Your task to perform on an android device: Open internet settings Image 0: 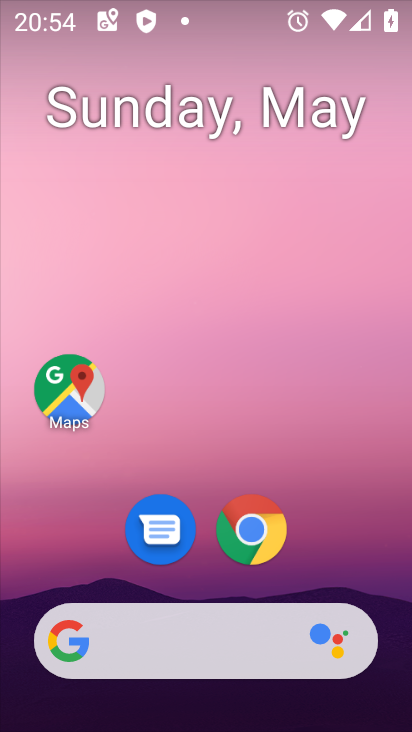
Step 0: drag from (354, 591) to (356, 12)
Your task to perform on an android device: Open internet settings Image 1: 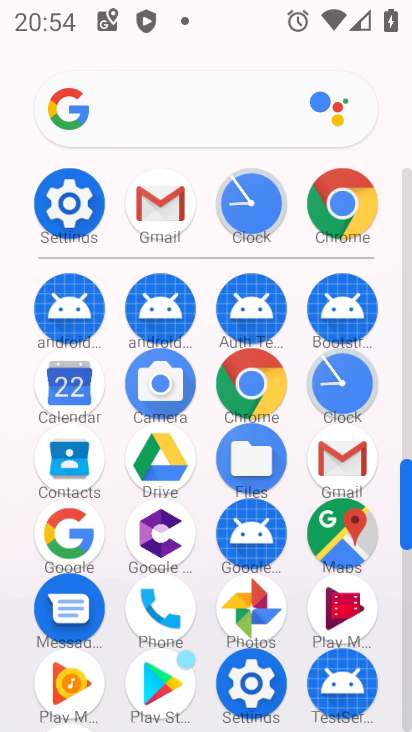
Step 1: click (72, 204)
Your task to perform on an android device: Open internet settings Image 2: 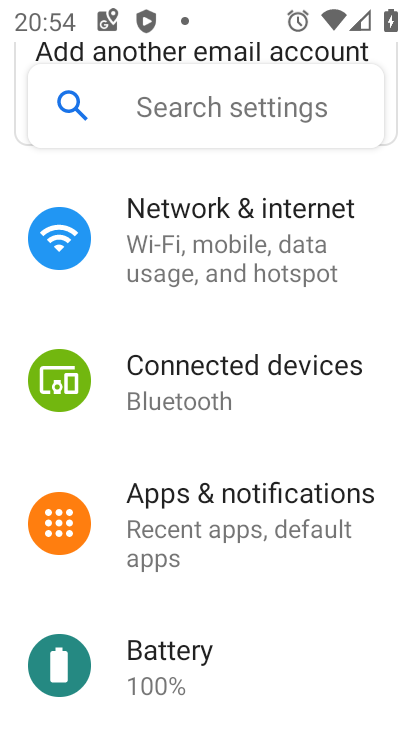
Step 2: click (203, 249)
Your task to perform on an android device: Open internet settings Image 3: 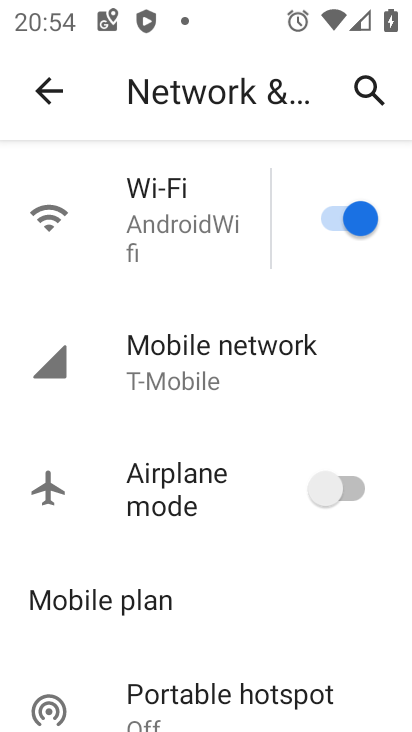
Step 3: task complete